Your task to perform on an android device: Check the weather Image 0: 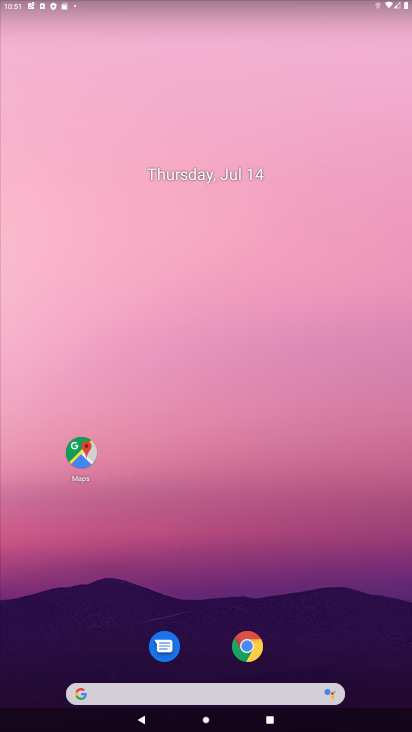
Step 0: drag from (200, 646) to (205, 190)
Your task to perform on an android device: Check the weather Image 1: 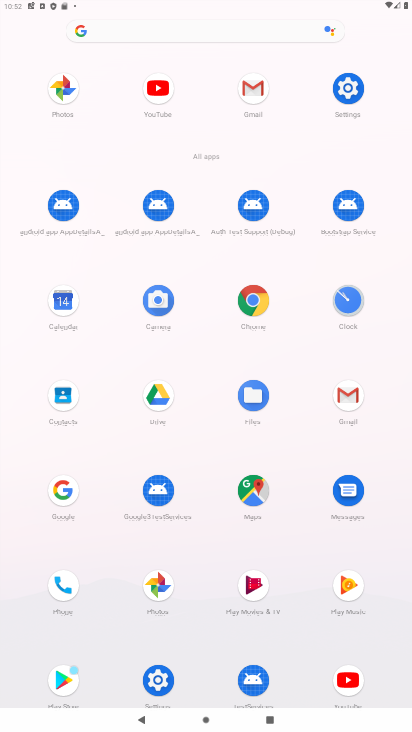
Step 1: click (30, 486)
Your task to perform on an android device: Check the weather Image 2: 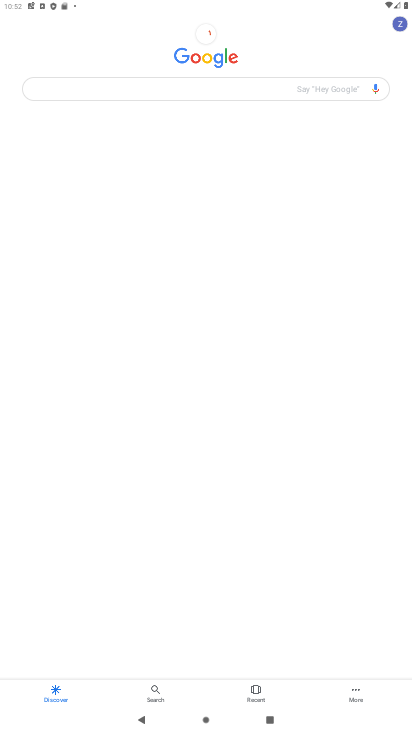
Step 2: click (169, 96)
Your task to perform on an android device: Check the weather Image 3: 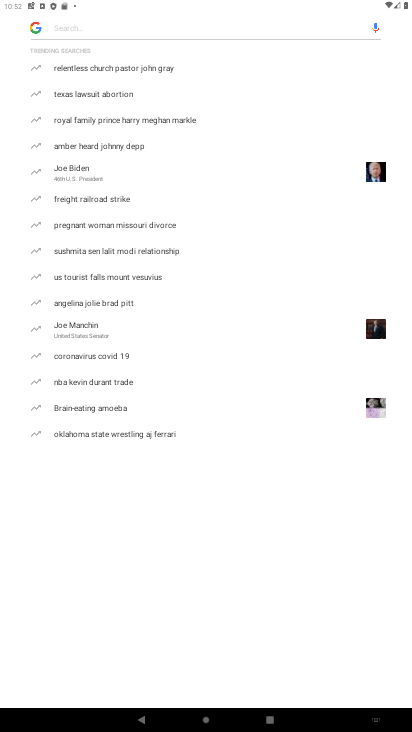
Step 3: type "weather"
Your task to perform on an android device: Check the weather Image 4: 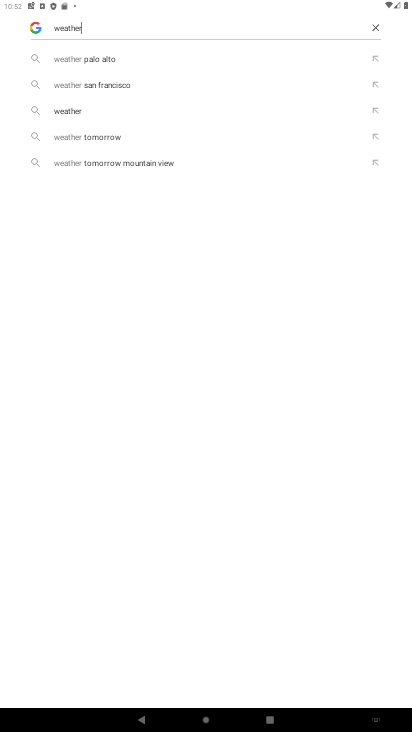
Step 4: click (79, 110)
Your task to perform on an android device: Check the weather Image 5: 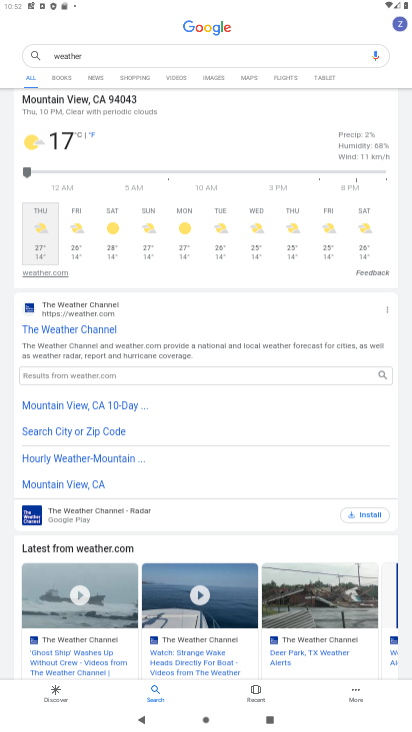
Step 5: task complete